Your task to perform on an android device: Go to ESPN.com Image 0: 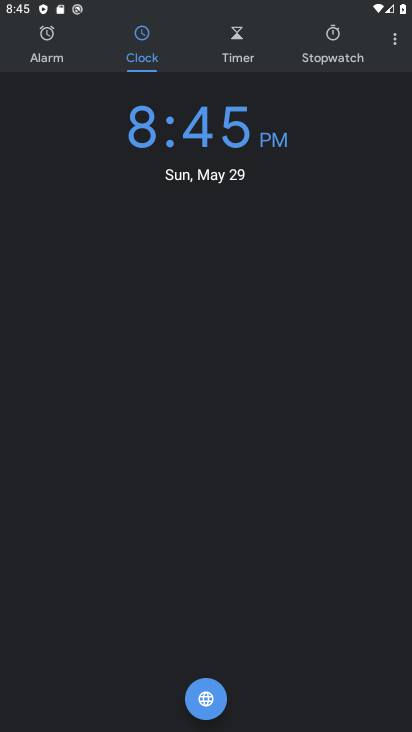
Step 0: press home button
Your task to perform on an android device: Go to ESPN.com Image 1: 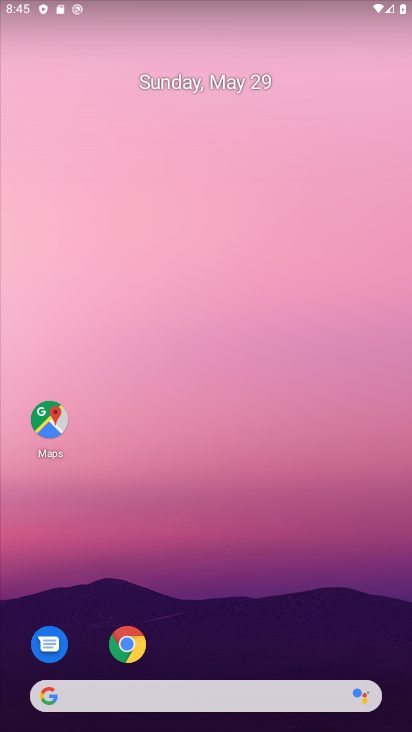
Step 1: click (132, 641)
Your task to perform on an android device: Go to ESPN.com Image 2: 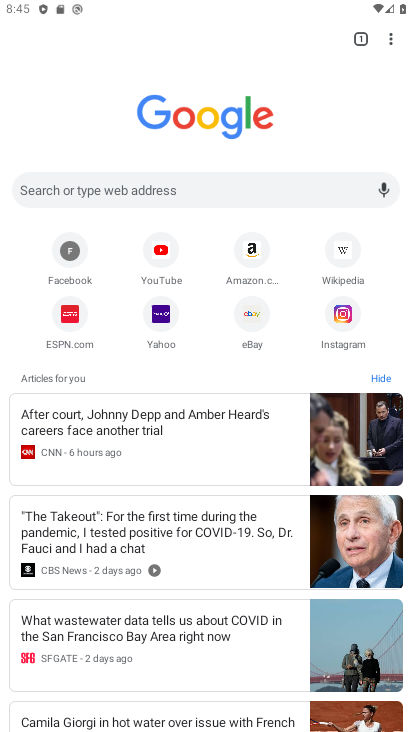
Step 2: click (71, 308)
Your task to perform on an android device: Go to ESPN.com Image 3: 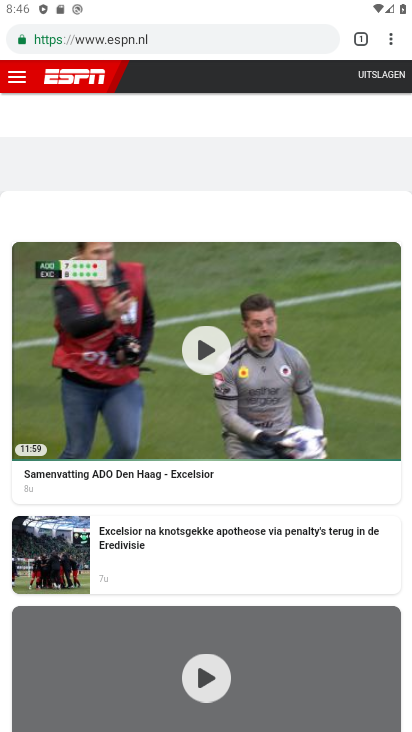
Step 3: task complete